Your task to perform on an android device: Open accessibility settings Image 0: 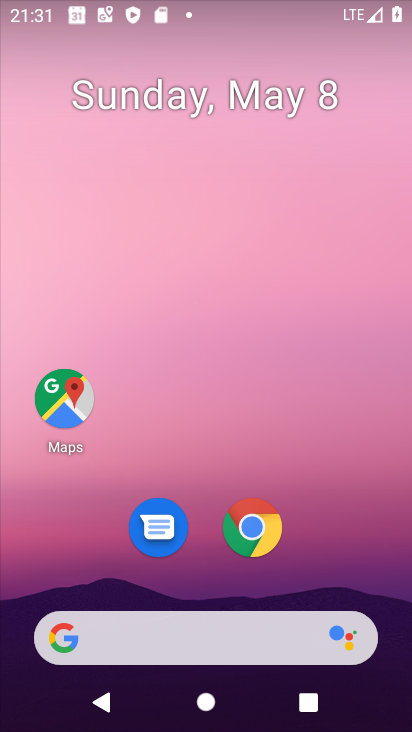
Step 0: drag from (198, 561) to (253, 52)
Your task to perform on an android device: Open accessibility settings Image 1: 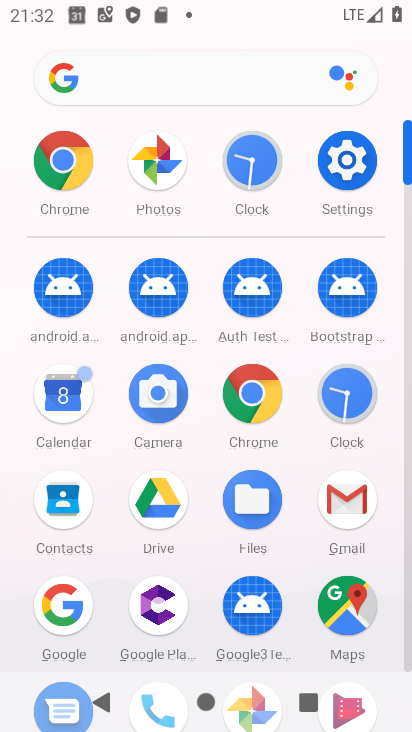
Step 1: click (347, 163)
Your task to perform on an android device: Open accessibility settings Image 2: 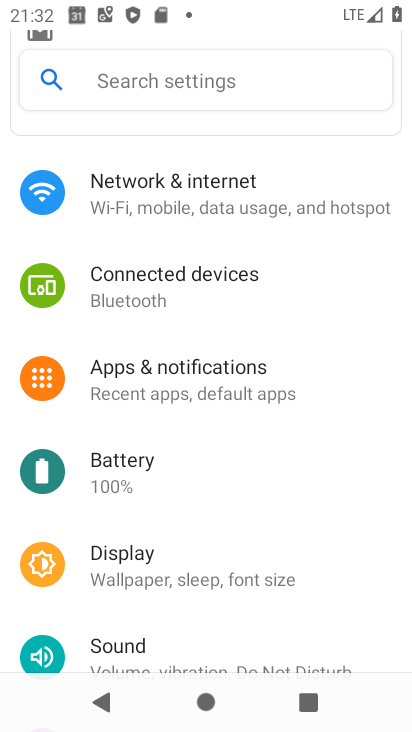
Step 2: drag from (230, 519) to (236, 104)
Your task to perform on an android device: Open accessibility settings Image 3: 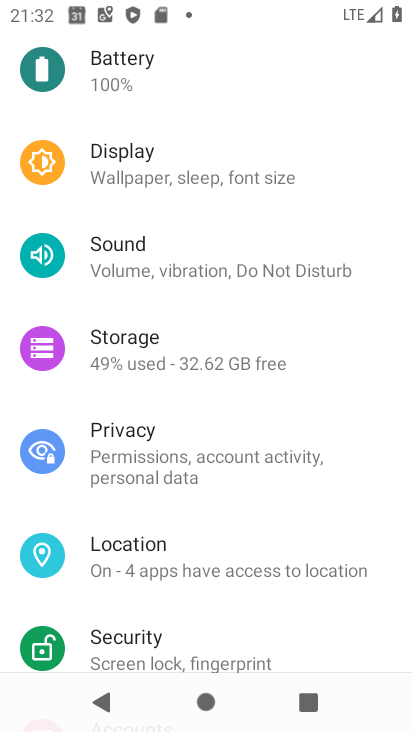
Step 3: drag from (192, 554) to (212, 208)
Your task to perform on an android device: Open accessibility settings Image 4: 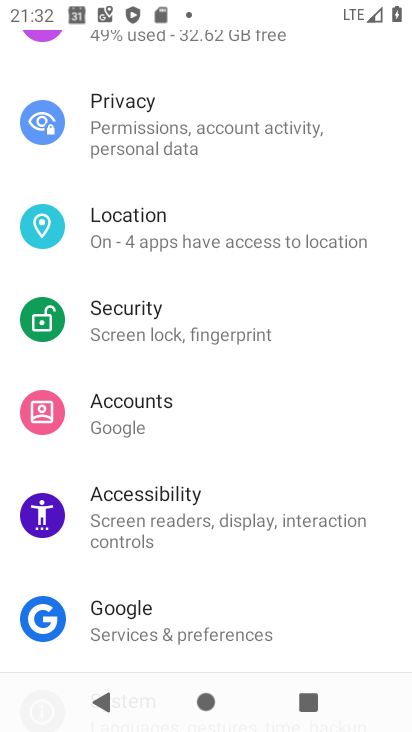
Step 4: click (144, 502)
Your task to perform on an android device: Open accessibility settings Image 5: 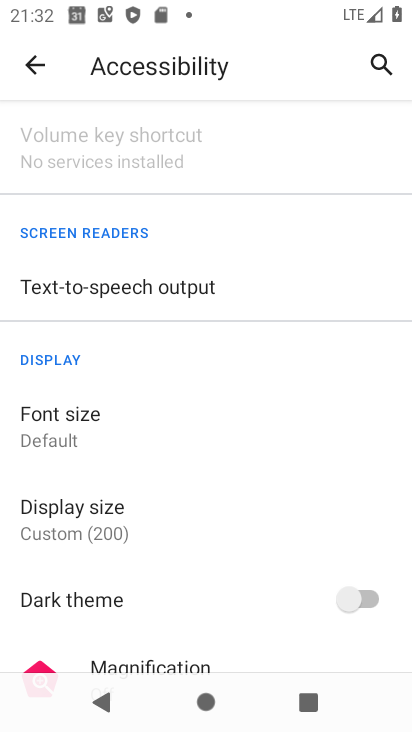
Step 5: task complete